Your task to perform on an android device: toggle javascript in the chrome app Image 0: 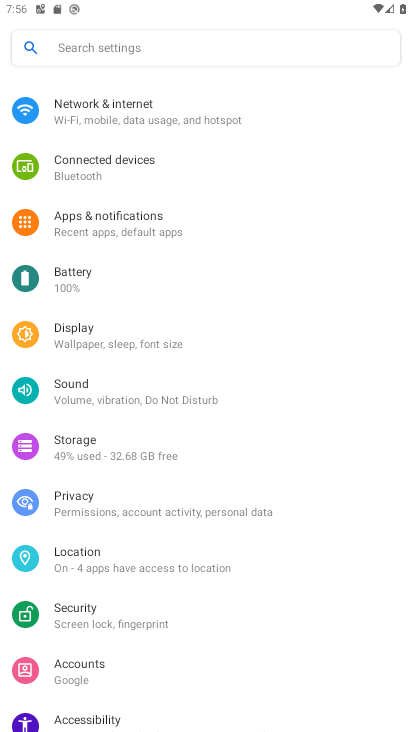
Step 0: click (270, 646)
Your task to perform on an android device: toggle javascript in the chrome app Image 1: 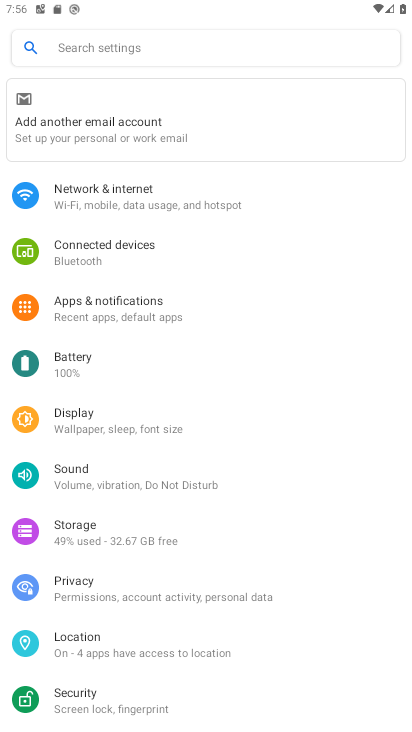
Step 1: press home button
Your task to perform on an android device: toggle javascript in the chrome app Image 2: 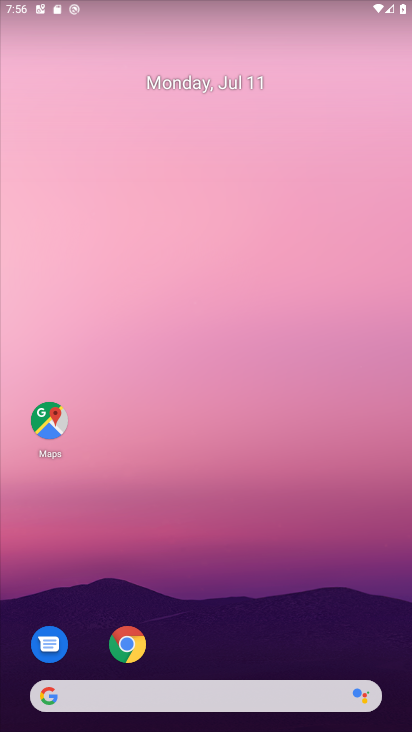
Step 2: drag from (236, 681) to (214, 192)
Your task to perform on an android device: toggle javascript in the chrome app Image 3: 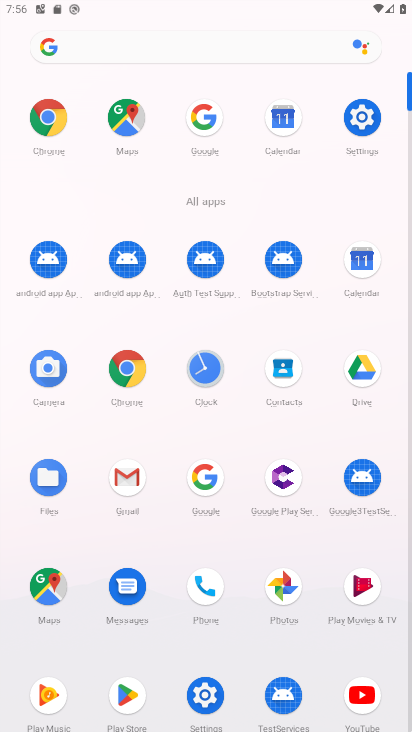
Step 3: click (49, 115)
Your task to perform on an android device: toggle javascript in the chrome app Image 4: 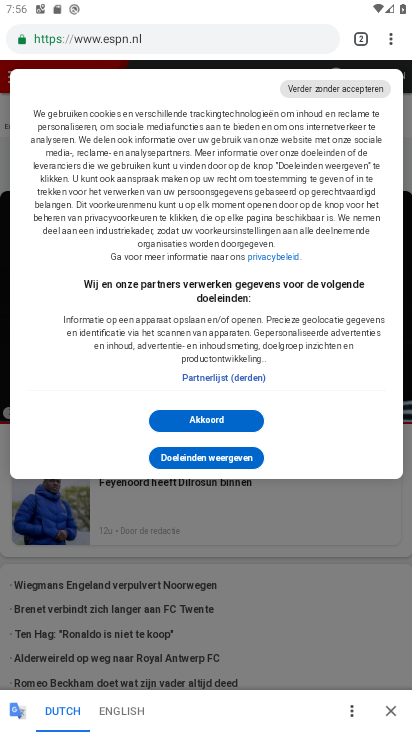
Step 4: click (383, 40)
Your task to perform on an android device: toggle javascript in the chrome app Image 5: 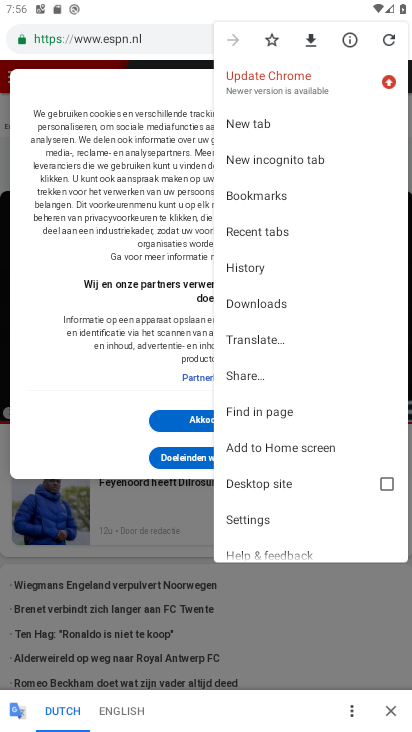
Step 5: click (280, 506)
Your task to perform on an android device: toggle javascript in the chrome app Image 6: 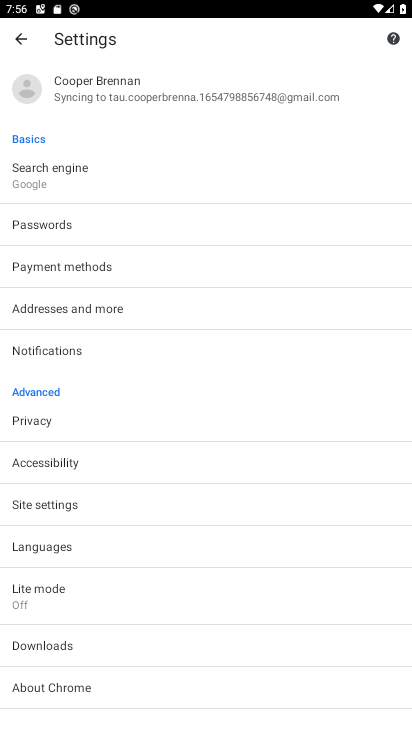
Step 6: click (106, 506)
Your task to perform on an android device: toggle javascript in the chrome app Image 7: 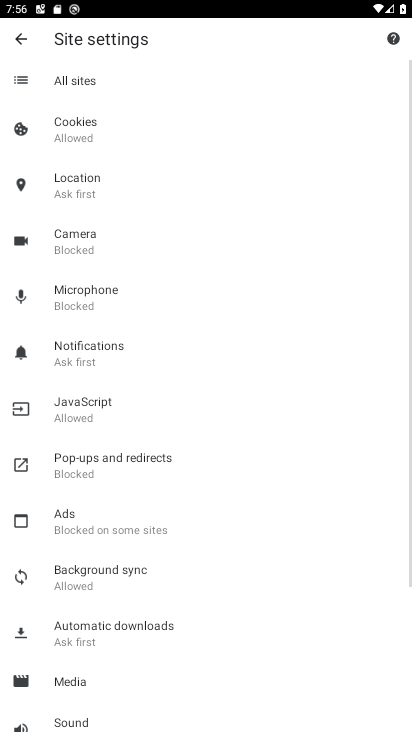
Step 7: click (105, 412)
Your task to perform on an android device: toggle javascript in the chrome app Image 8: 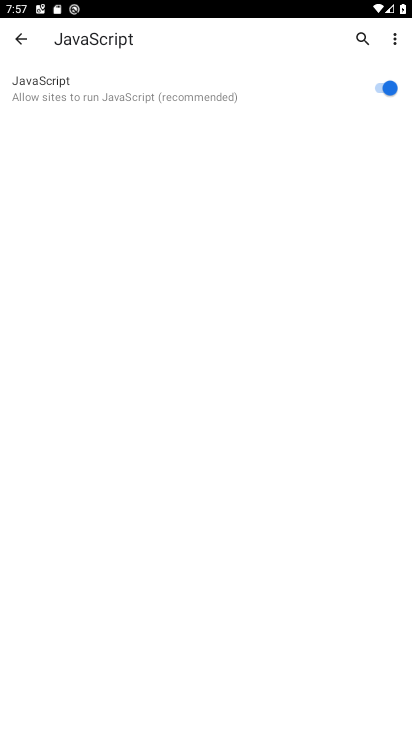
Step 8: task complete